Your task to perform on an android device: change notification settings in the gmail app Image 0: 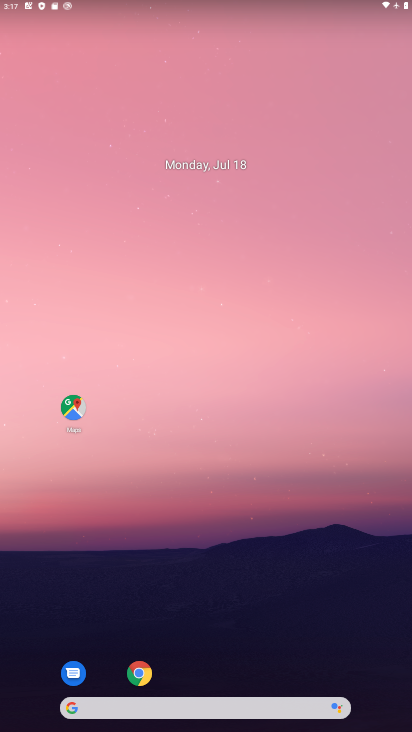
Step 0: drag from (273, 602) to (217, 166)
Your task to perform on an android device: change notification settings in the gmail app Image 1: 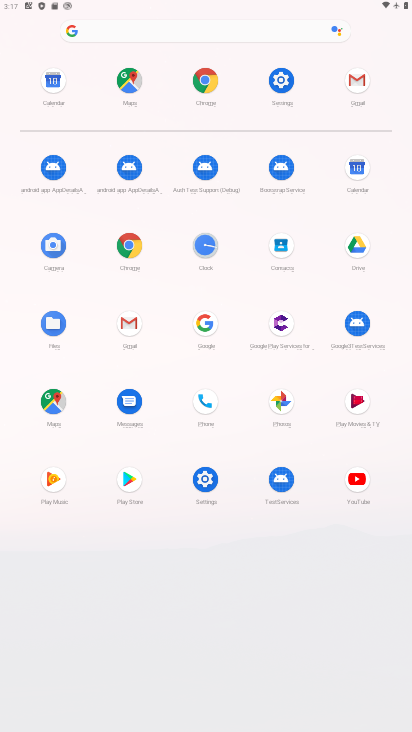
Step 1: click (277, 73)
Your task to perform on an android device: change notification settings in the gmail app Image 2: 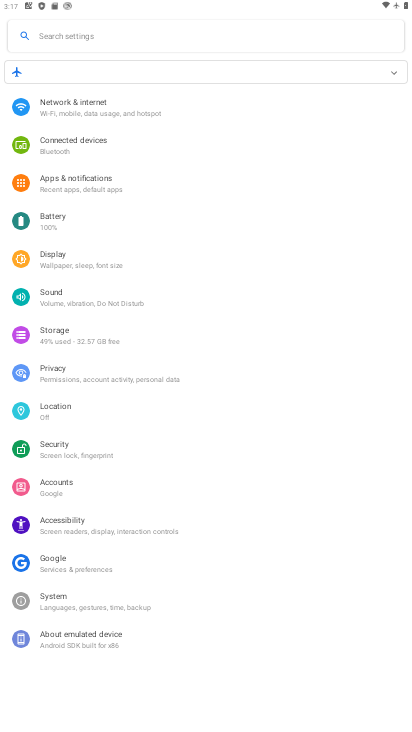
Step 2: click (358, 69)
Your task to perform on an android device: change notification settings in the gmail app Image 3: 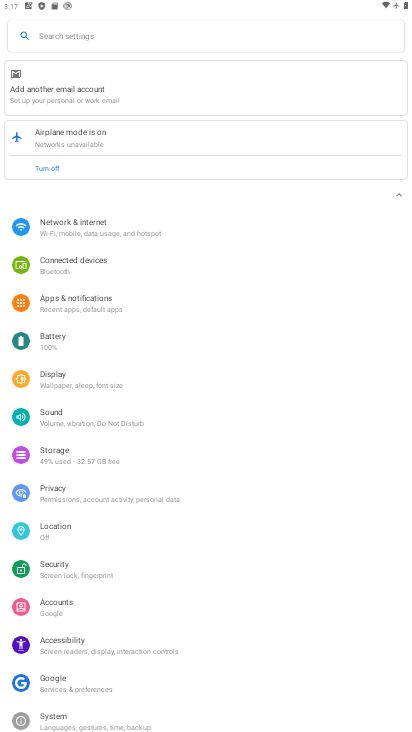
Step 3: press home button
Your task to perform on an android device: change notification settings in the gmail app Image 4: 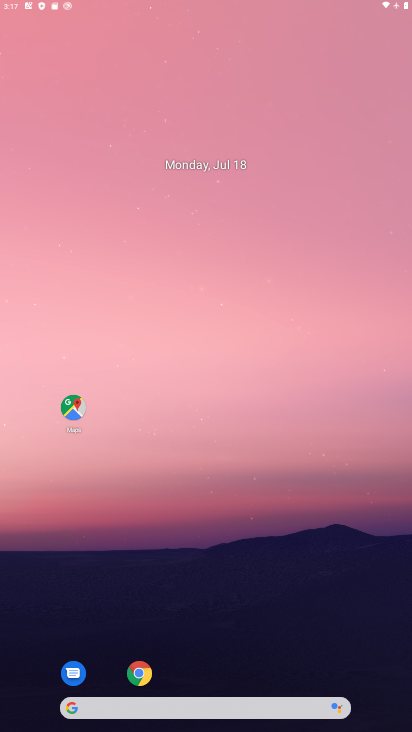
Step 4: drag from (223, 451) to (261, 88)
Your task to perform on an android device: change notification settings in the gmail app Image 5: 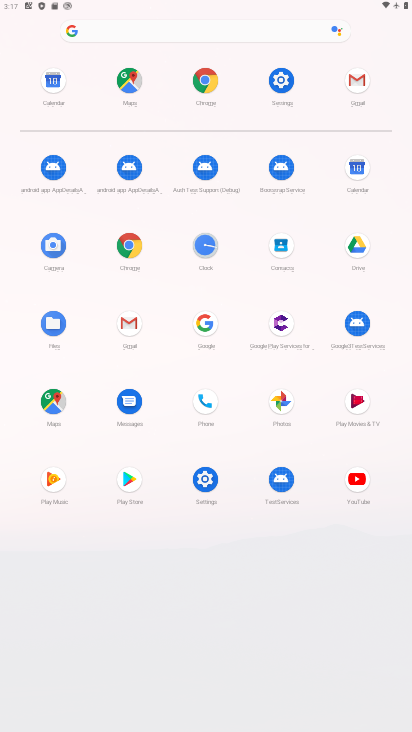
Step 5: click (366, 77)
Your task to perform on an android device: change notification settings in the gmail app Image 6: 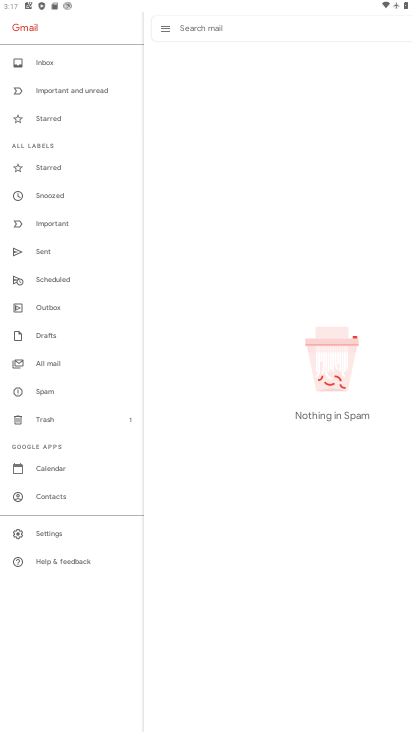
Step 6: click (54, 532)
Your task to perform on an android device: change notification settings in the gmail app Image 7: 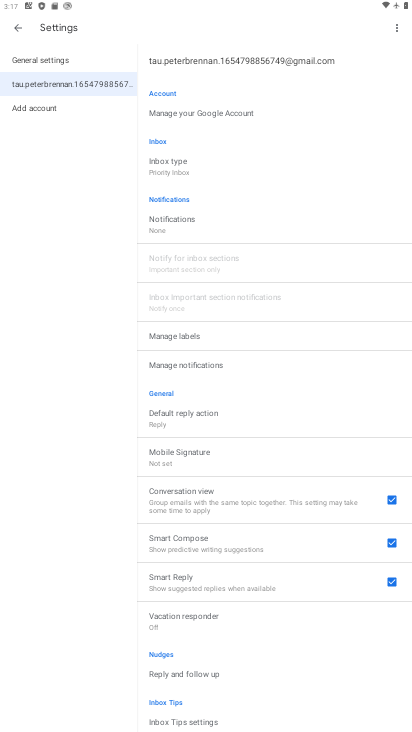
Step 7: click (193, 230)
Your task to perform on an android device: change notification settings in the gmail app Image 8: 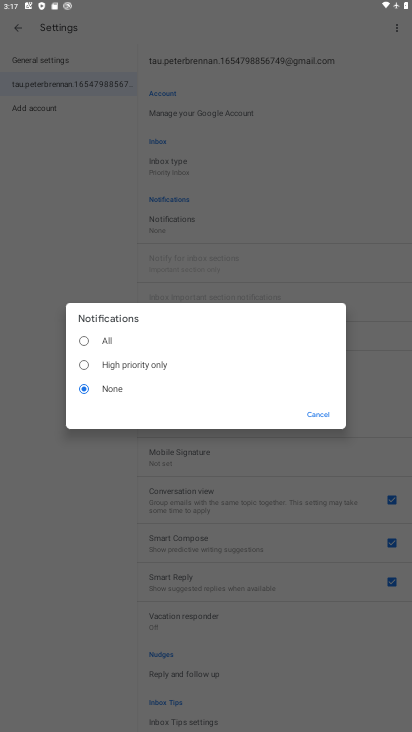
Step 8: click (131, 343)
Your task to perform on an android device: change notification settings in the gmail app Image 9: 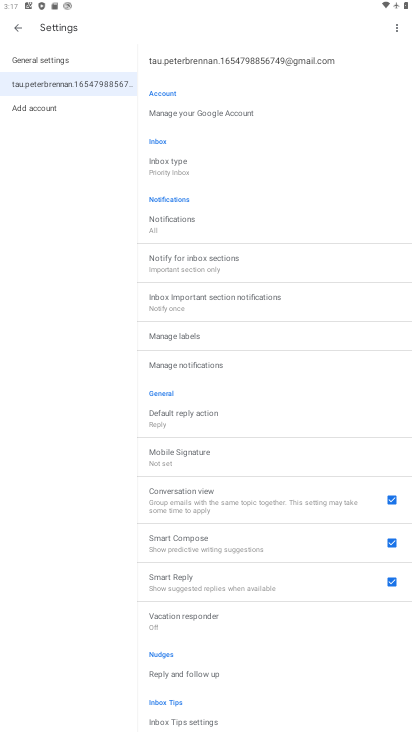
Step 9: task complete